Your task to perform on an android device: change notifications settings Image 0: 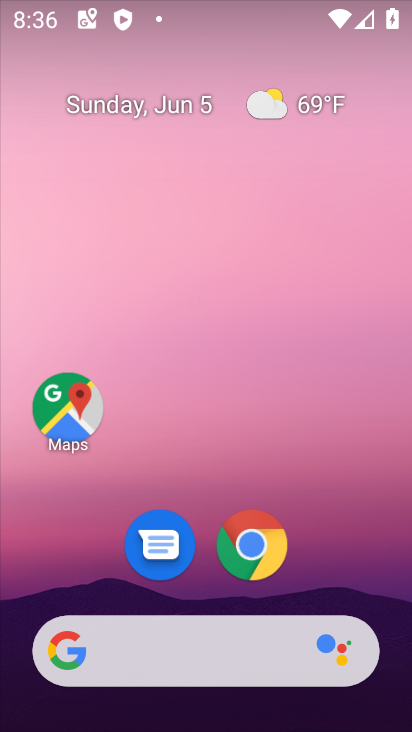
Step 0: drag from (375, 592) to (363, 235)
Your task to perform on an android device: change notifications settings Image 1: 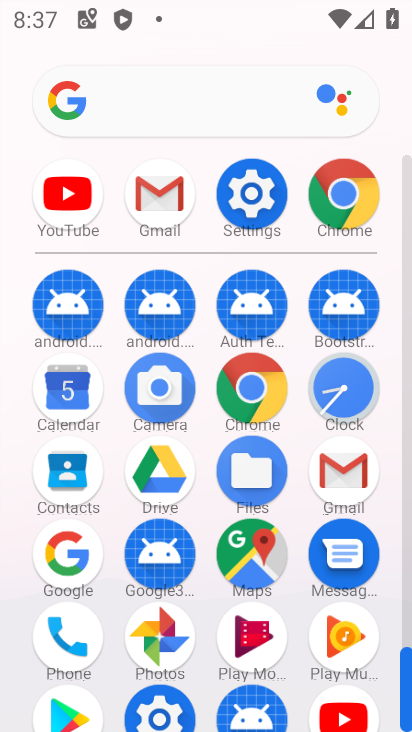
Step 1: click (273, 217)
Your task to perform on an android device: change notifications settings Image 2: 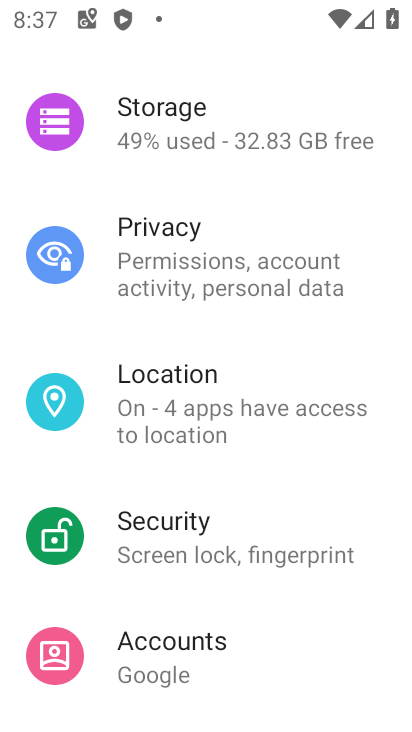
Step 2: drag from (379, 217) to (368, 301)
Your task to perform on an android device: change notifications settings Image 3: 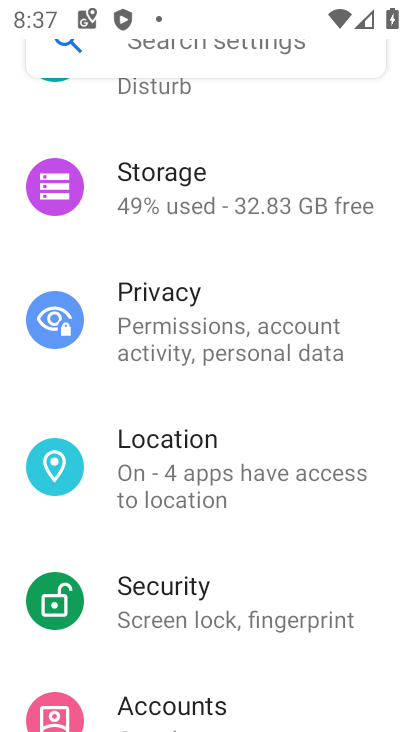
Step 3: drag from (369, 153) to (374, 281)
Your task to perform on an android device: change notifications settings Image 4: 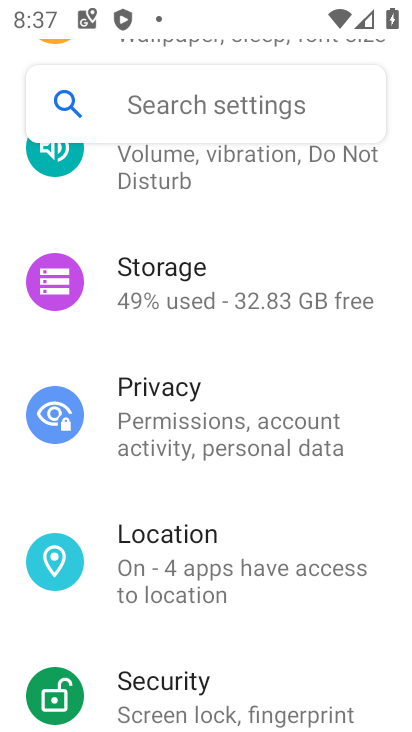
Step 4: drag from (366, 204) to (387, 330)
Your task to perform on an android device: change notifications settings Image 5: 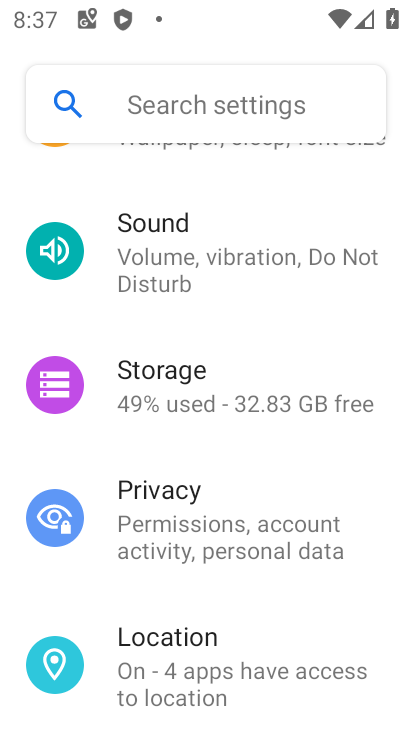
Step 5: drag from (360, 215) to (352, 337)
Your task to perform on an android device: change notifications settings Image 6: 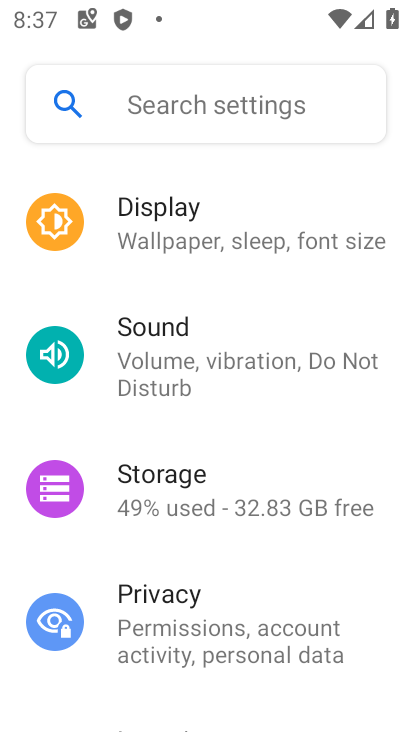
Step 6: drag from (369, 200) to (346, 331)
Your task to perform on an android device: change notifications settings Image 7: 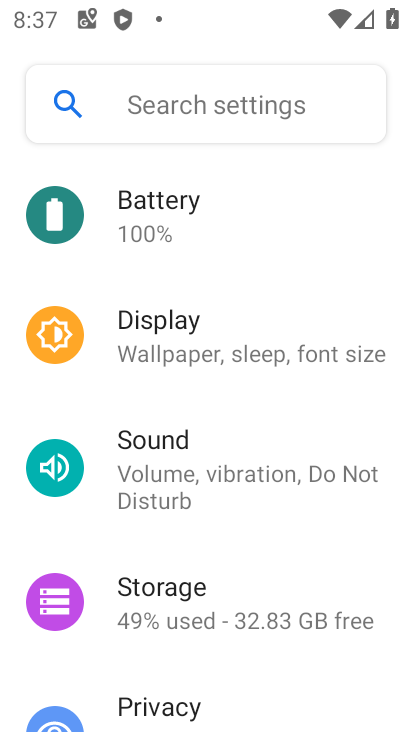
Step 7: drag from (368, 201) to (352, 338)
Your task to perform on an android device: change notifications settings Image 8: 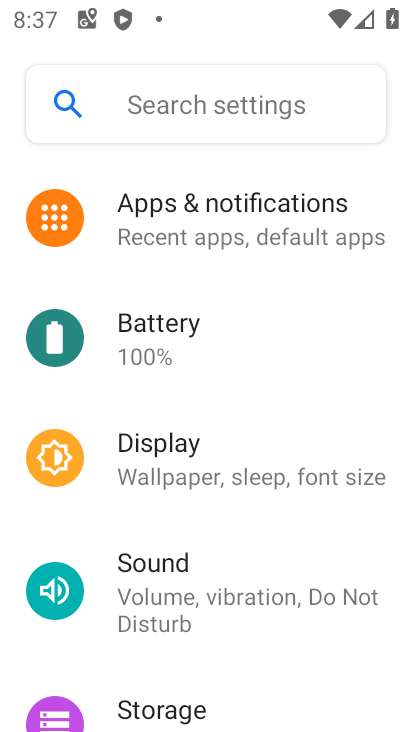
Step 8: drag from (371, 179) to (370, 297)
Your task to perform on an android device: change notifications settings Image 9: 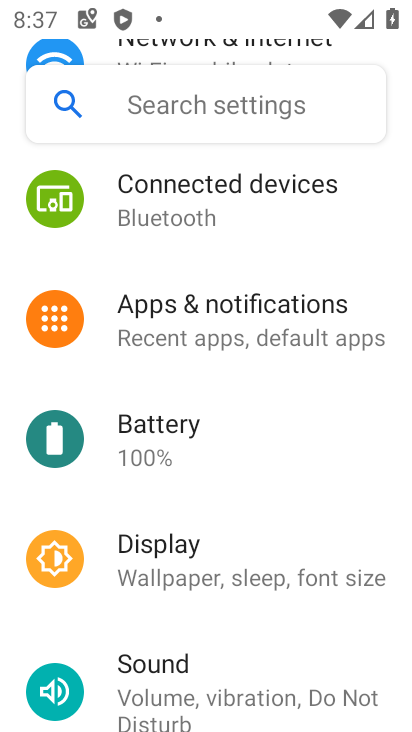
Step 9: drag from (371, 205) to (352, 291)
Your task to perform on an android device: change notifications settings Image 10: 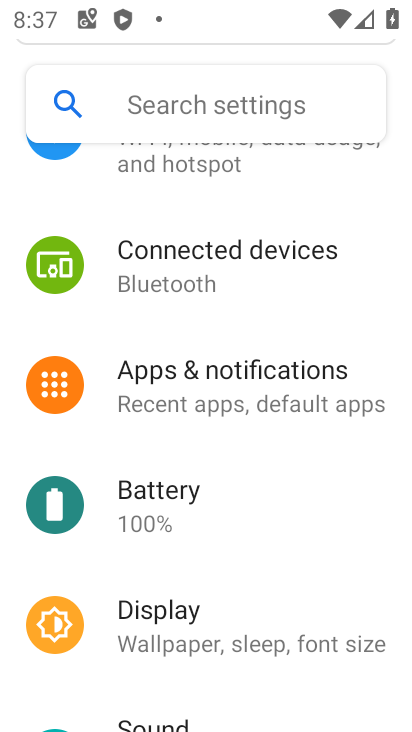
Step 10: click (318, 386)
Your task to perform on an android device: change notifications settings Image 11: 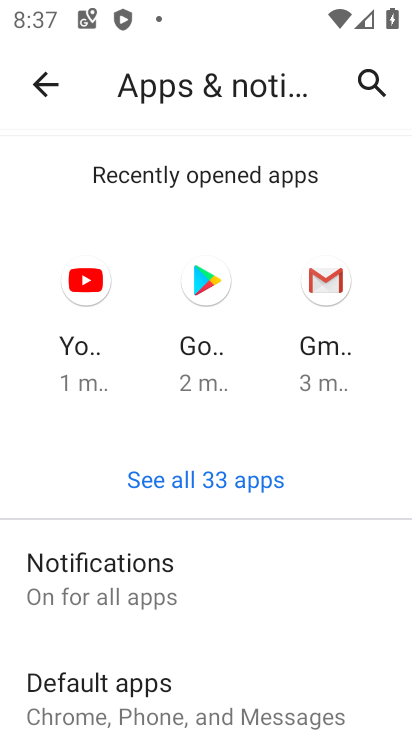
Step 11: click (186, 578)
Your task to perform on an android device: change notifications settings Image 12: 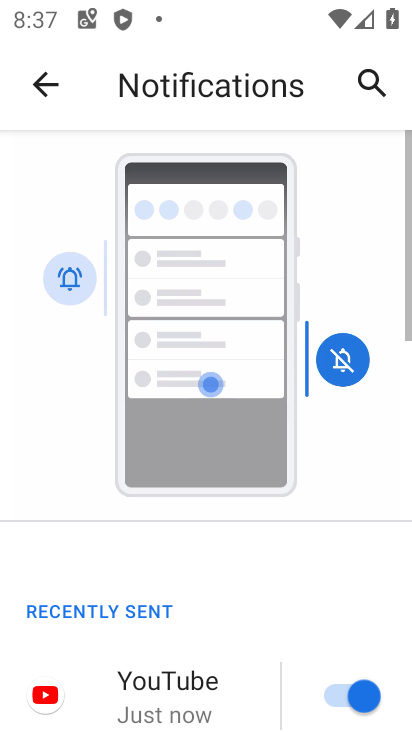
Step 12: drag from (258, 576) to (300, 393)
Your task to perform on an android device: change notifications settings Image 13: 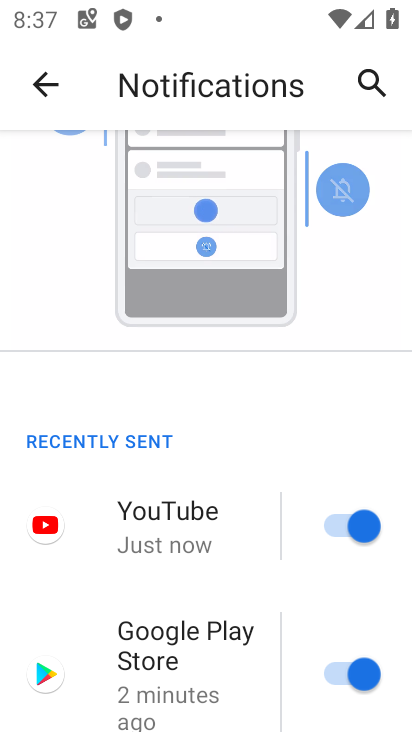
Step 13: drag from (251, 552) to (247, 456)
Your task to perform on an android device: change notifications settings Image 14: 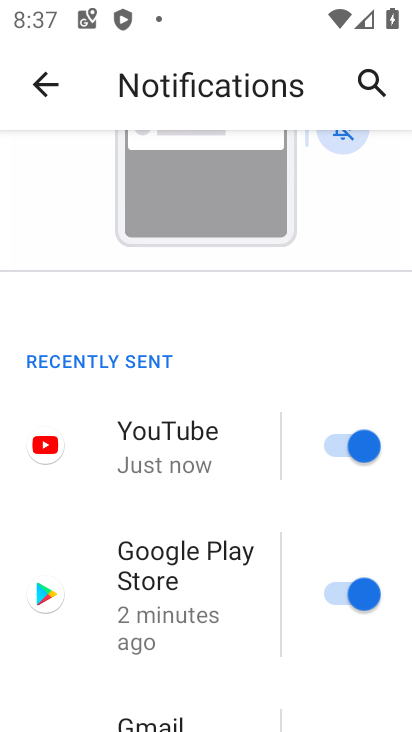
Step 14: drag from (255, 595) to (247, 464)
Your task to perform on an android device: change notifications settings Image 15: 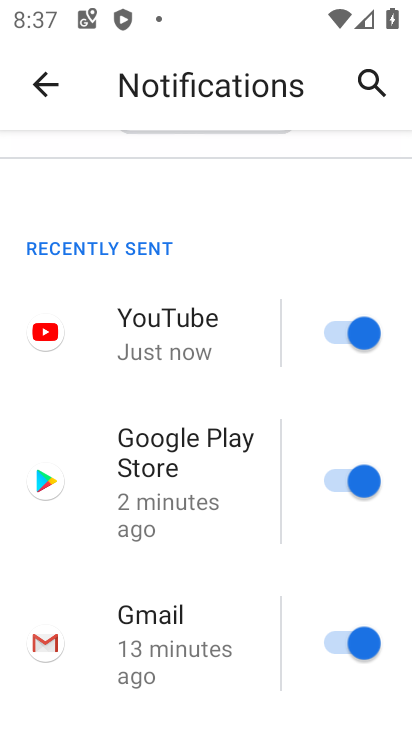
Step 15: click (349, 336)
Your task to perform on an android device: change notifications settings Image 16: 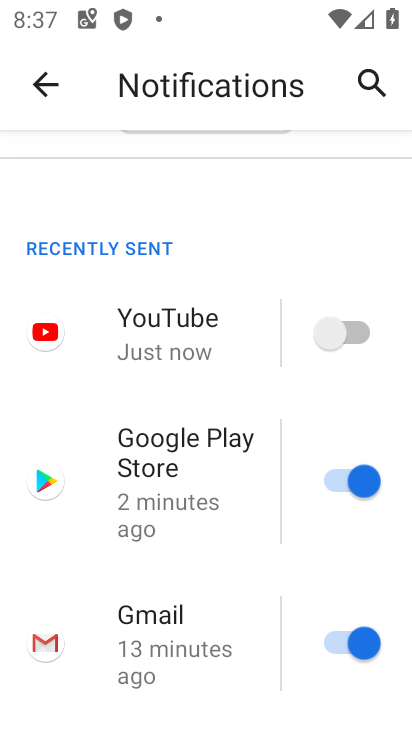
Step 16: click (355, 491)
Your task to perform on an android device: change notifications settings Image 17: 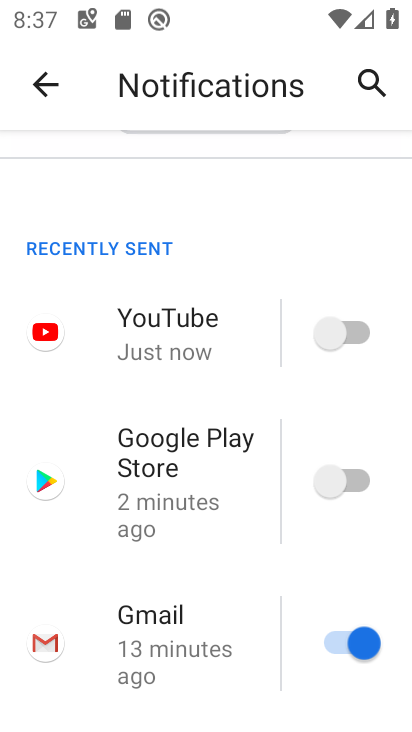
Step 17: drag from (234, 535) to (238, 404)
Your task to perform on an android device: change notifications settings Image 18: 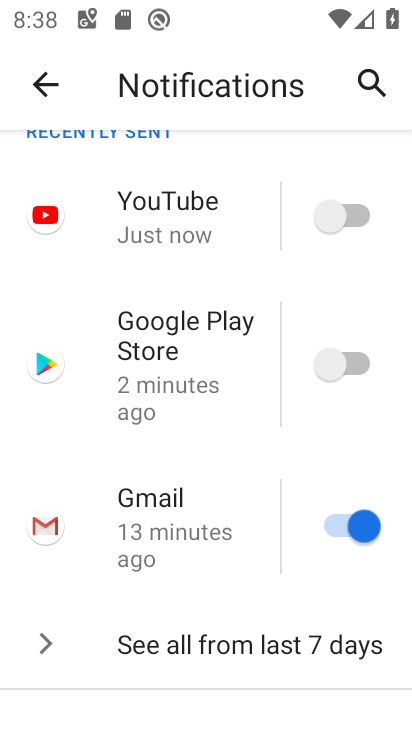
Step 18: click (342, 534)
Your task to perform on an android device: change notifications settings Image 19: 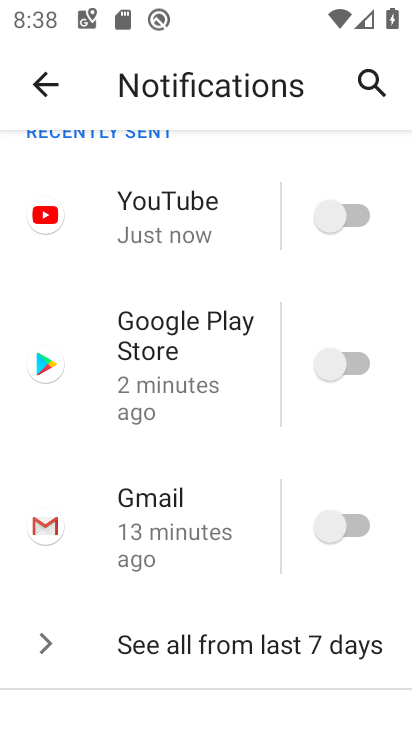
Step 19: task complete